Your task to perform on an android device: set the stopwatch Image 0: 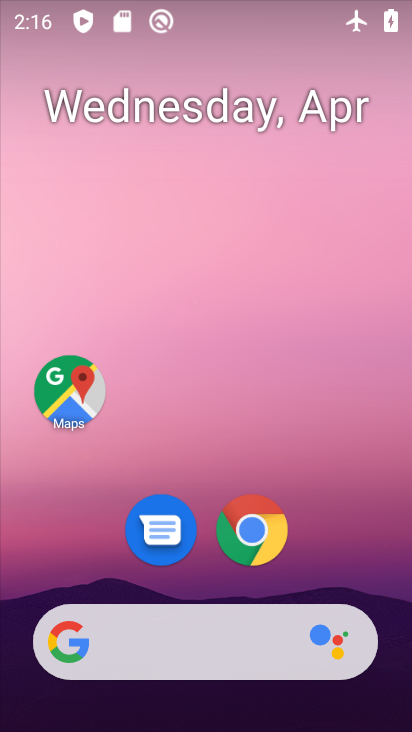
Step 0: drag from (339, 554) to (358, 156)
Your task to perform on an android device: set the stopwatch Image 1: 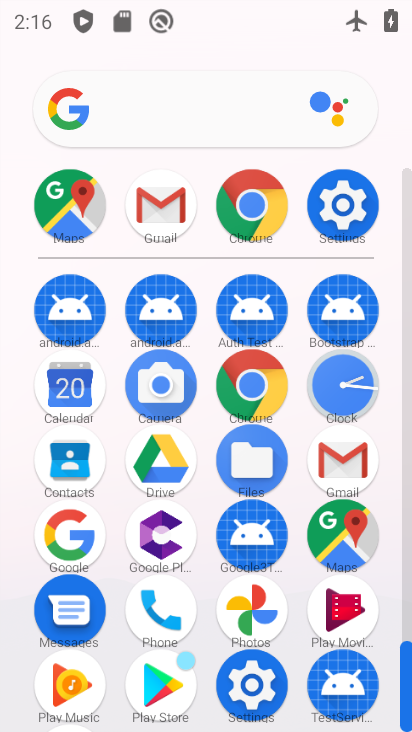
Step 1: drag from (294, 576) to (288, 438)
Your task to perform on an android device: set the stopwatch Image 2: 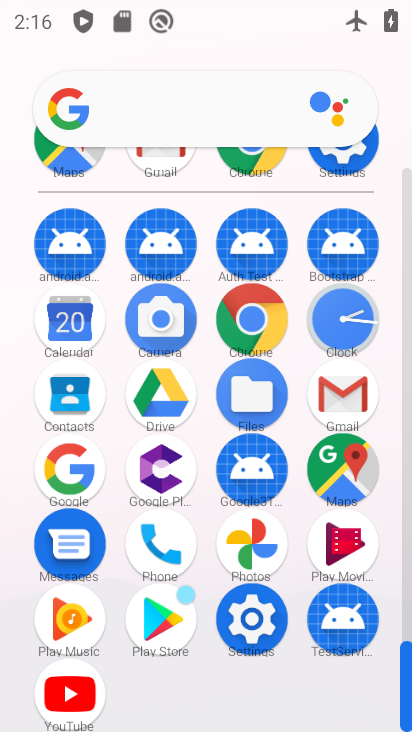
Step 2: click (349, 317)
Your task to perform on an android device: set the stopwatch Image 3: 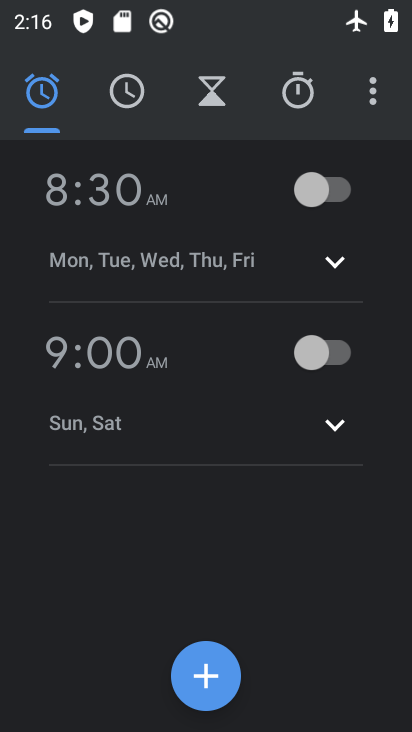
Step 3: click (303, 101)
Your task to perform on an android device: set the stopwatch Image 4: 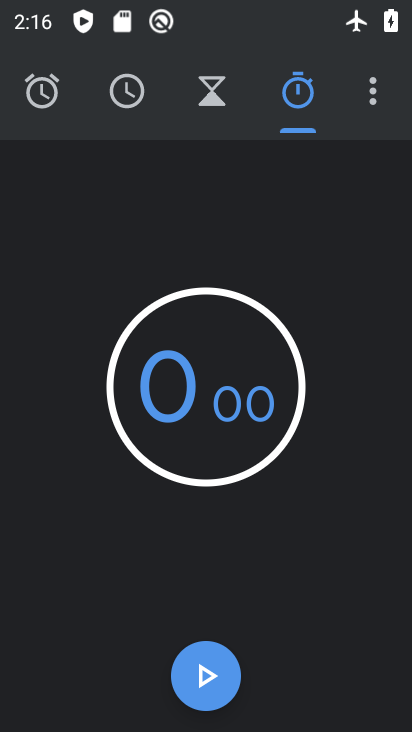
Step 4: click (205, 673)
Your task to perform on an android device: set the stopwatch Image 5: 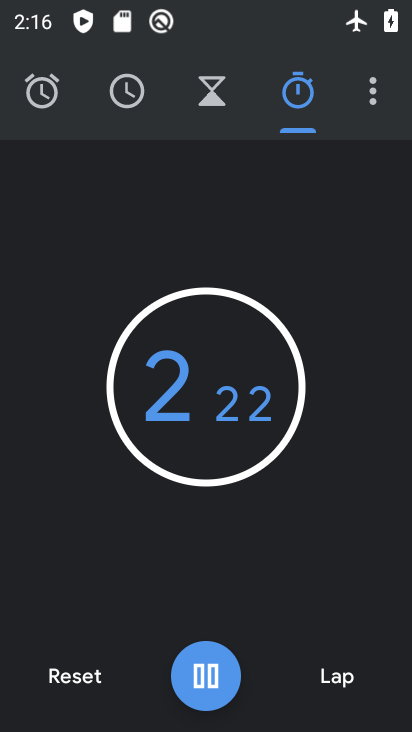
Step 5: click (205, 673)
Your task to perform on an android device: set the stopwatch Image 6: 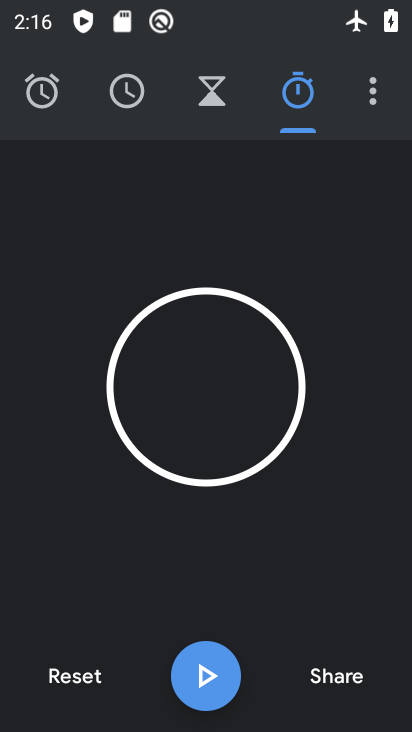
Step 6: task complete